Your task to perform on an android device: clear all cookies in the chrome app Image 0: 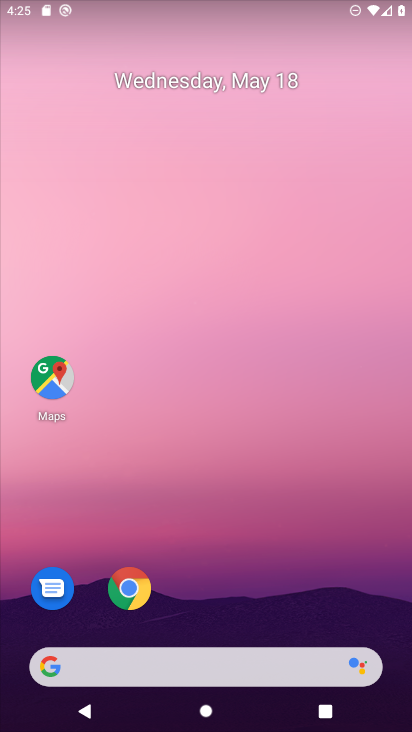
Step 0: click (106, 582)
Your task to perform on an android device: clear all cookies in the chrome app Image 1: 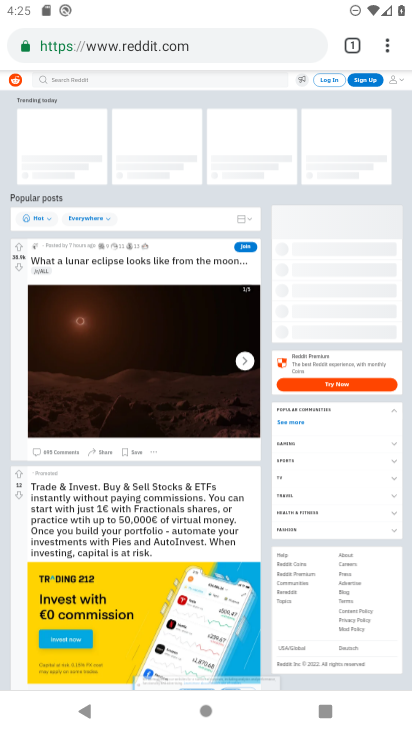
Step 1: click (188, 43)
Your task to perform on an android device: clear all cookies in the chrome app Image 2: 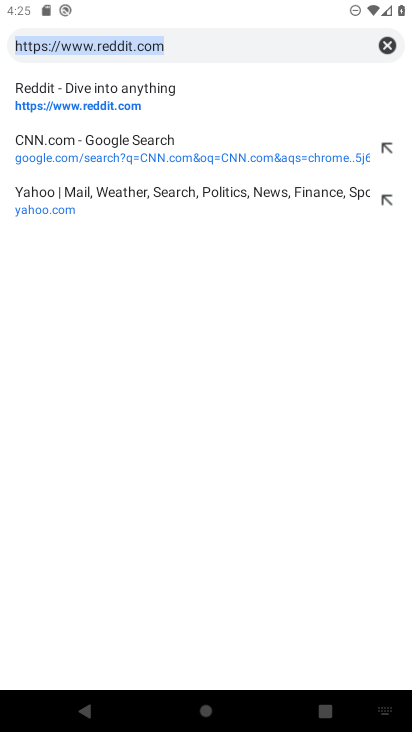
Step 2: click (391, 37)
Your task to perform on an android device: clear all cookies in the chrome app Image 3: 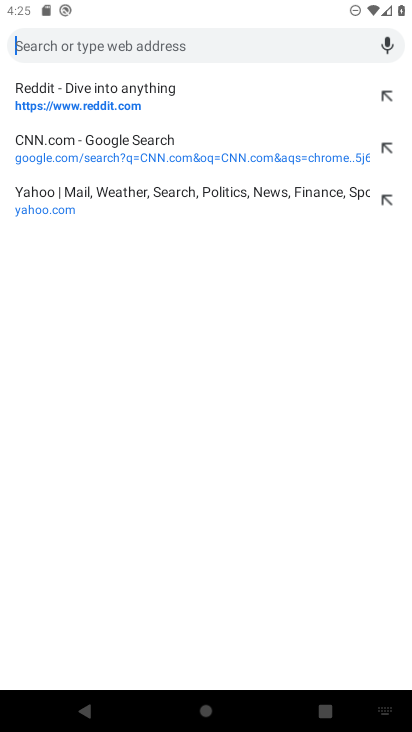
Step 3: click (344, 486)
Your task to perform on an android device: clear all cookies in the chrome app Image 4: 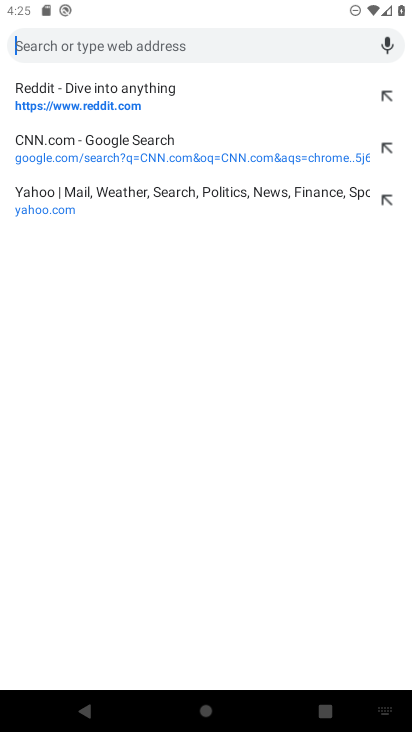
Step 4: click (65, 717)
Your task to perform on an android device: clear all cookies in the chrome app Image 5: 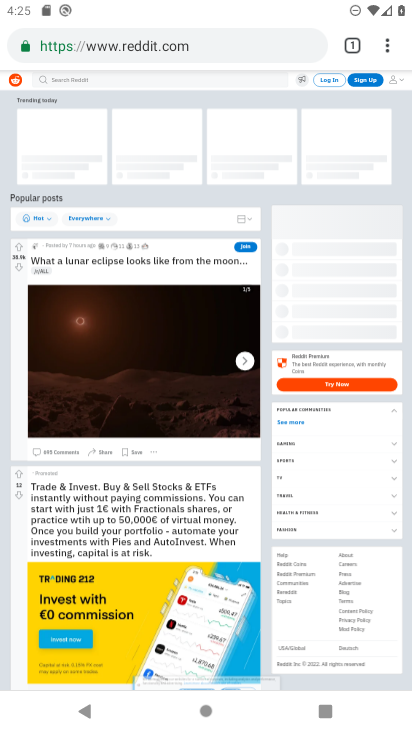
Step 5: click (391, 48)
Your task to perform on an android device: clear all cookies in the chrome app Image 6: 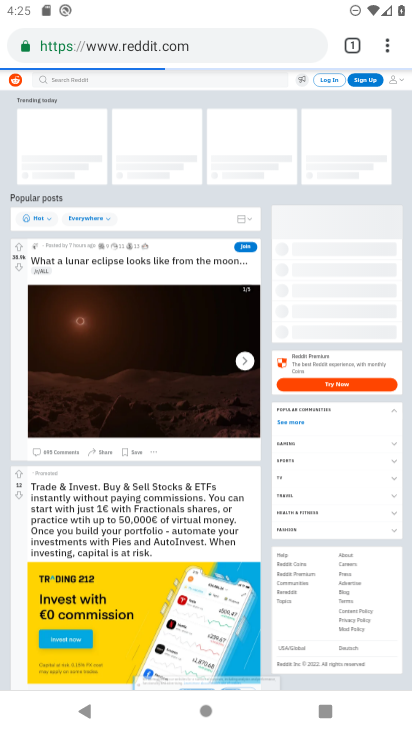
Step 6: click (386, 55)
Your task to perform on an android device: clear all cookies in the chrome app Image 7: 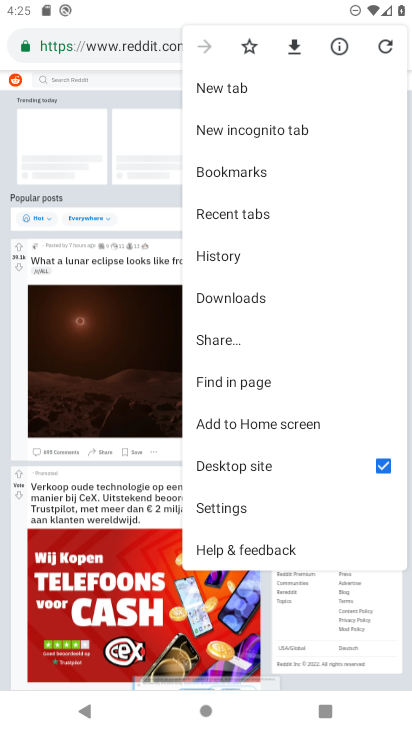
Step 7: click (232, 521)
Your task to perform on an android device: clear all cookies in the chrome app Image 8: 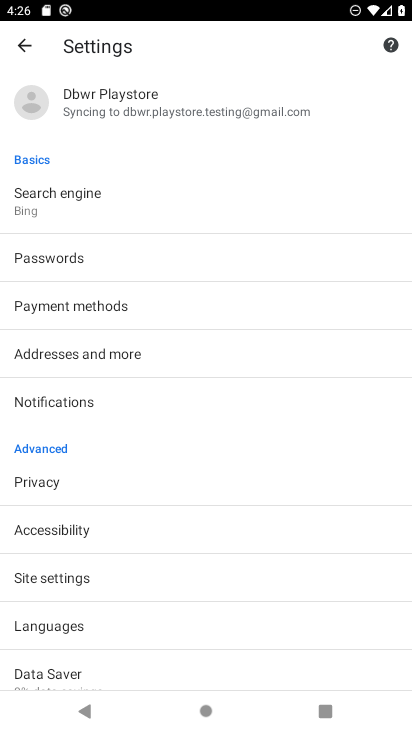
Step 8: drag from (65, 634) to (97, 527)
Your task to perform on an android device: clear all cookies in the chrome app Image 9: 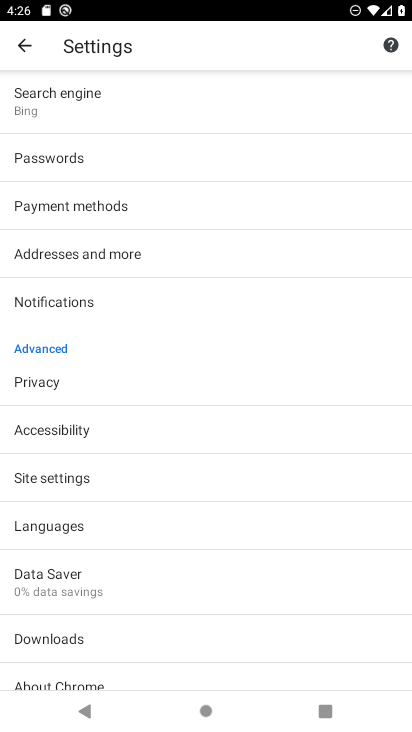
Step 9: click (28, 59)
Your task to perform on an android device: clear all cookies in the chrome app Image 10: 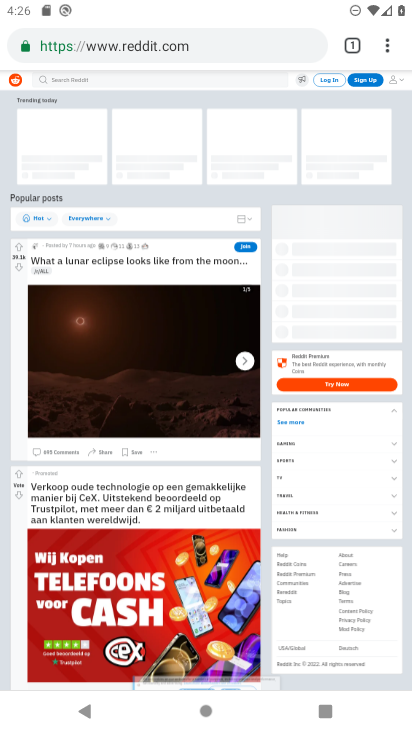
Step 10: click (382, 50)
Your task to perform on an android device: clear all cookies in the chrome app Image 11: 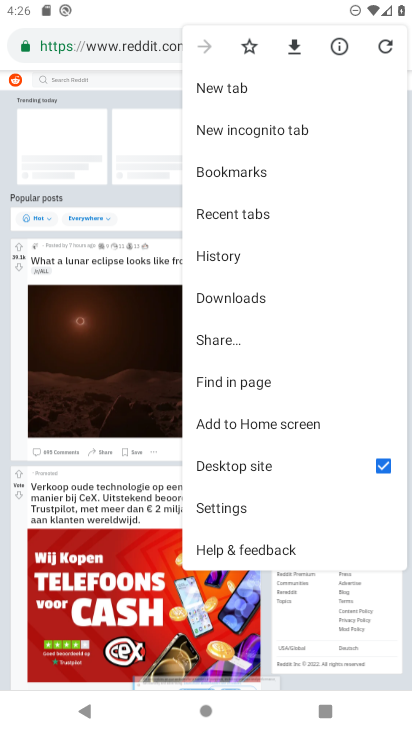
Step 11: click (251, 263)
Your task to perform on an android device: clear all cookies in the chrome app Image 12: 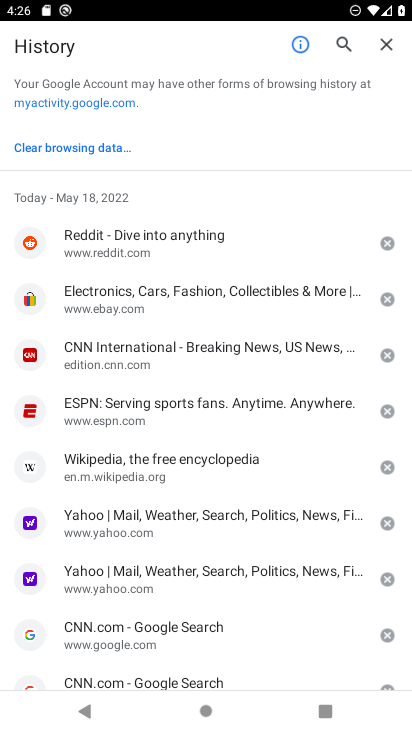
Step 12: click (90, 155)
Your task to perform on an android device: clear all cookies in the chrome app Image 13: 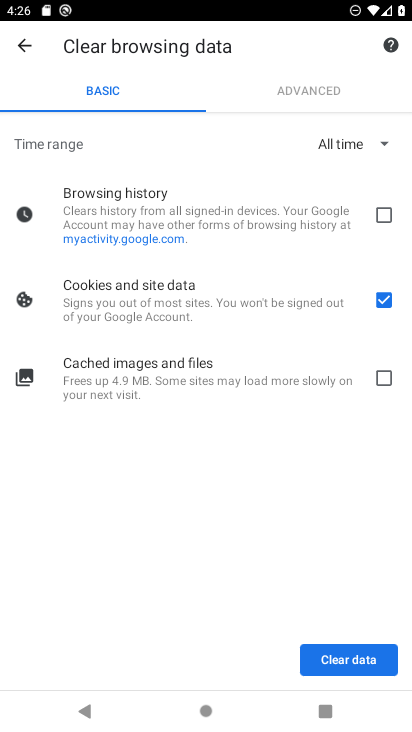
Step 13: click (342, 668)
Your task to perform on an android device: clear all cookies in the chrome app Image 14: 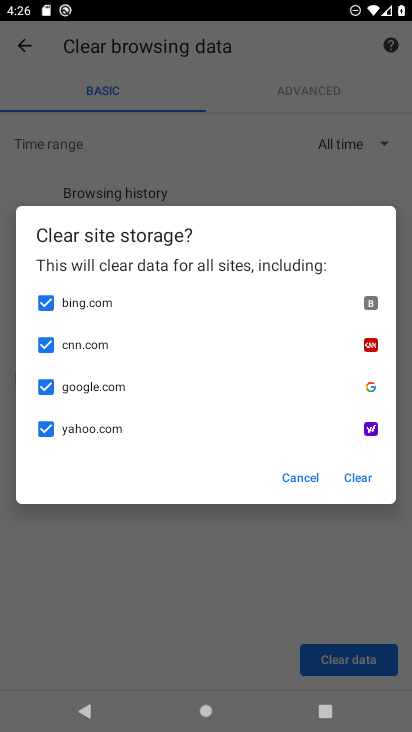
Step 14: click (340, 480)
Your task to perform on an android device: clear all cookies in the chrome app Image 15: 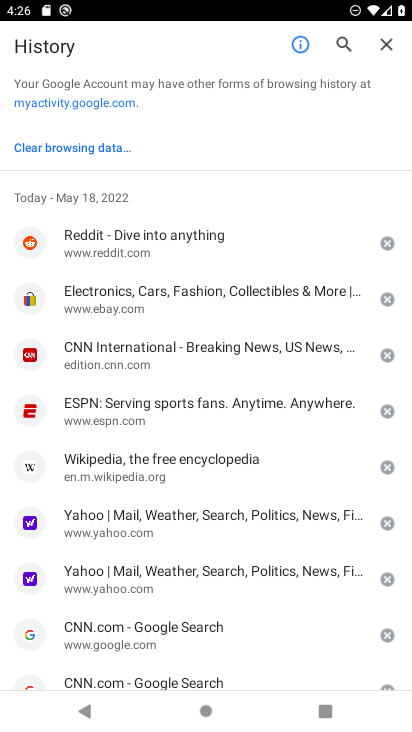
Step 15: task complete